Your task to perform on an android device: Go to location settings Image 0: 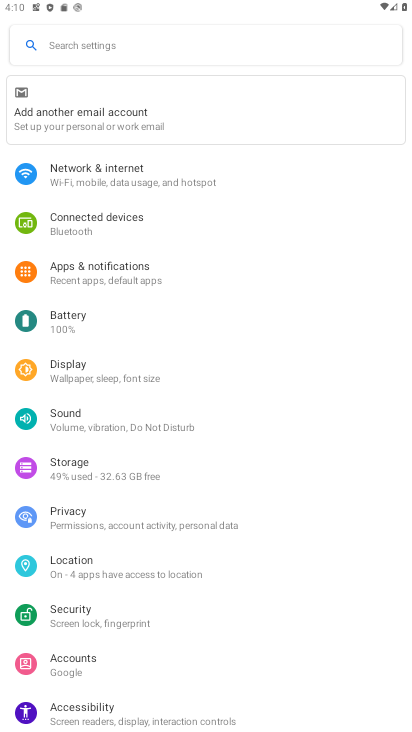
Step 0: click (115, 566)
Your task to perform on an android device: Go to location settings Image 1: 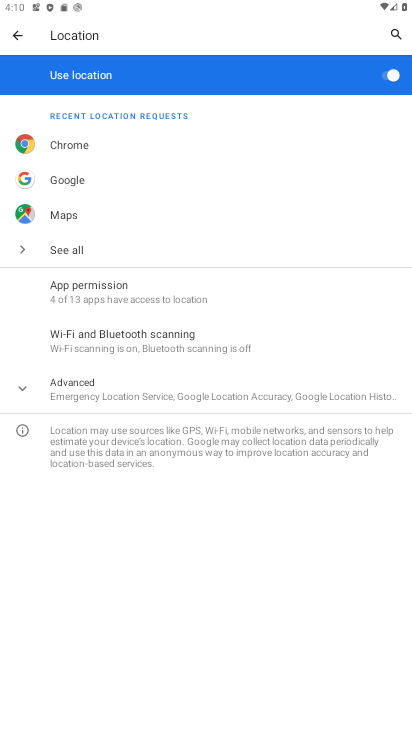
Step 1: task complete